Your task to perform on an android device: Open settings on Google Maps Image 0: 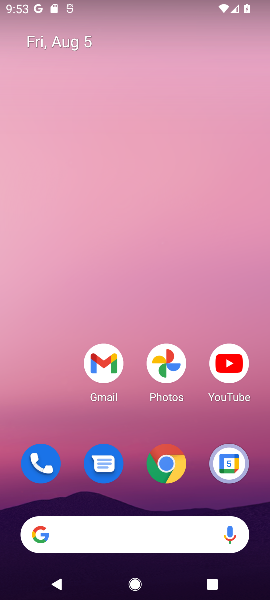
Step 0: drag from (171, 564) to (55, 84)
Your task to perform on an android device: Open settings on Google Maps Image 1: 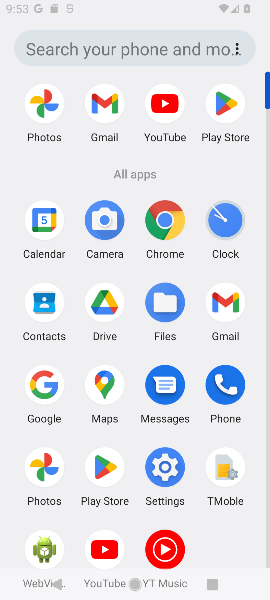
Step 1: drag from (136, 467) to (105, 213)
Your task to perform on an android device: Open settings on Google Maps Image 2: 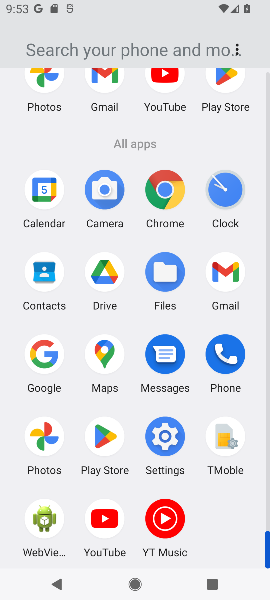
Step 2: click (106, 354)
Your task to perform on an android device: Open settings on Google Maps Image 3: 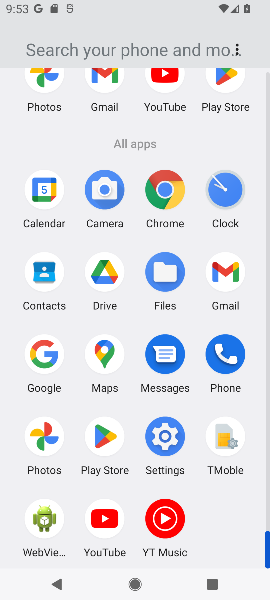
Step 3: click (106, 354)
Your task to perform on an android device: Open settings on Google Maps Image 4: 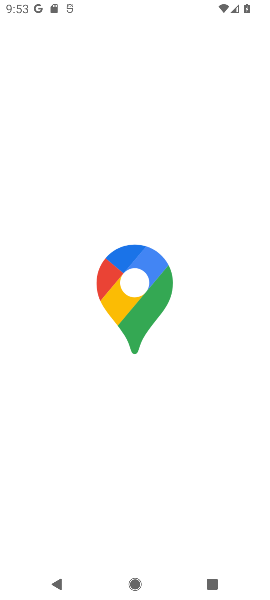
Step 4: click (106, 354)
Your task to perform on an android device: Open settings on Google Maps Image 5: 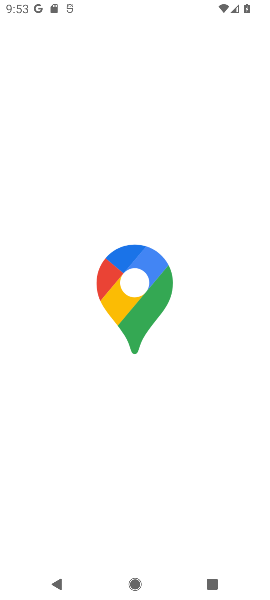
Step 5: click (106, 354)
Your task to perform on an android device: Open settings on Google Maps Image 6: 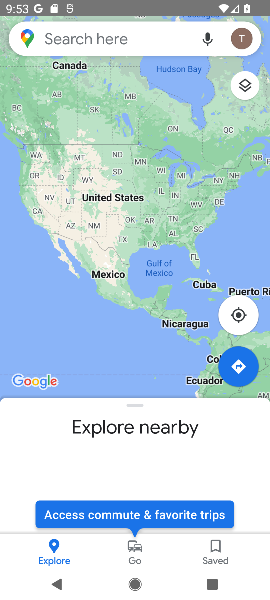
Step 6: click (236, 30)
Your task to perform on an android device: Open settings on Google Maps Image 7: 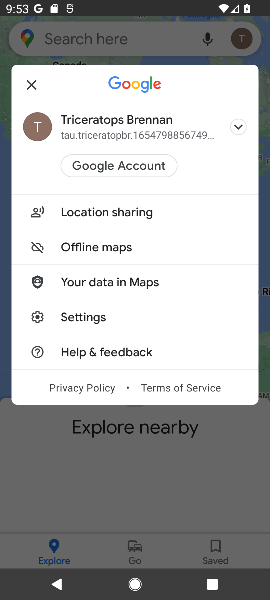
Step 7: click (80, 308)
Your task to perform on an android device: Open settings on Google Maps Image 8: 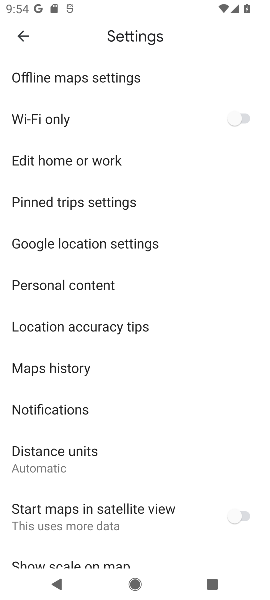
Step 8: task complete